Your task to perform on an android device: What's the weather? Image 0: 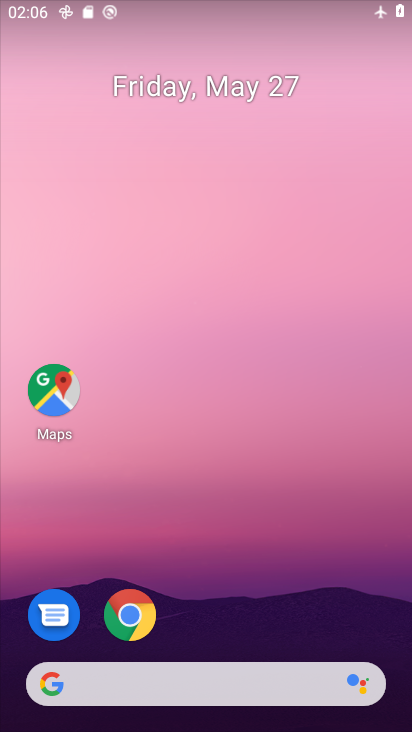
Step 0: click (215, 690)
Your task to perform on an android device: What's the weather? Image 1: 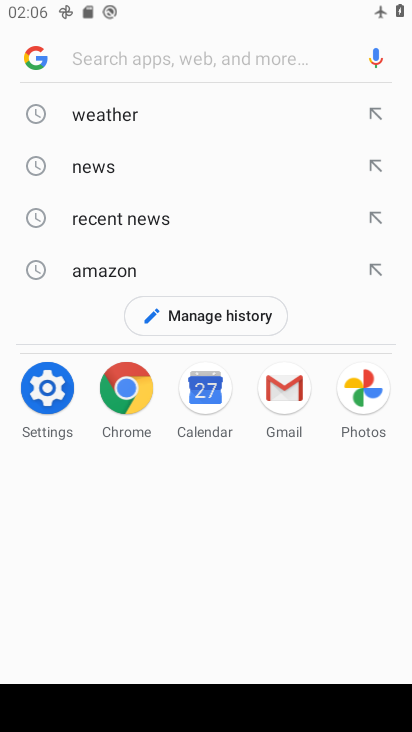
Step 1: click (130, 115)
Your task to perform on an android device: What's the weather? Image 2: 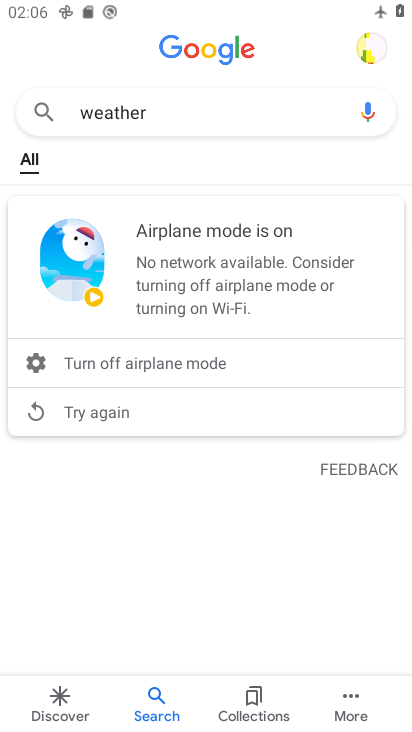
Step 2: task complete